Your task to perform on an android device: Open Google Chrome Image 0: 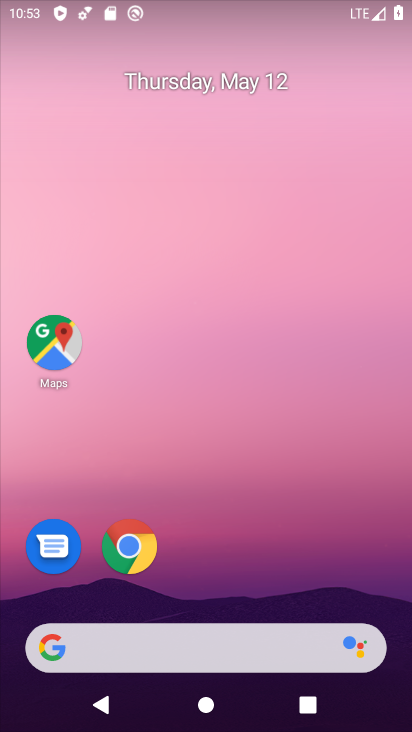
Step 0: click (130, 549)
Your task to perform on an android device: Open Google Chrome Image 1: 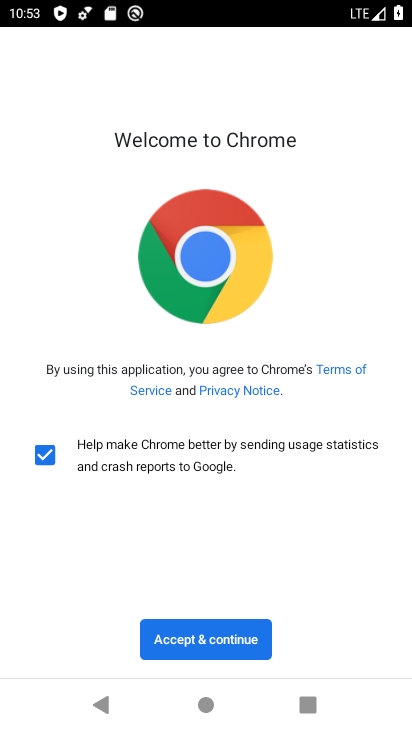
Step 1: click (234, 644)
Your task to perform on an android device: Open Google Chrome Image 2: 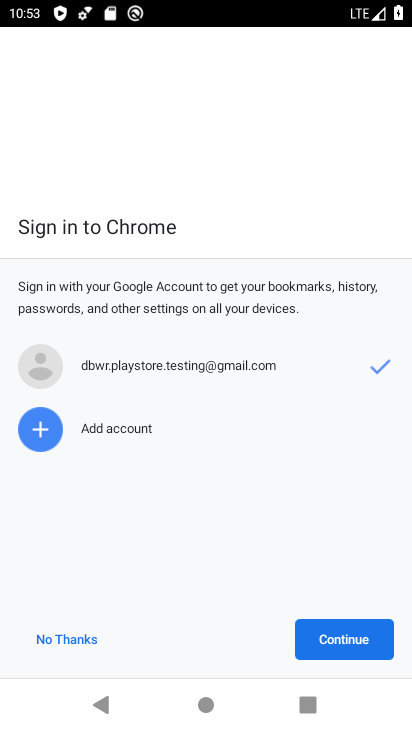
Step 2: click (355, 641)
Your task to perform on an android device: Open Google Chrome Image 3: 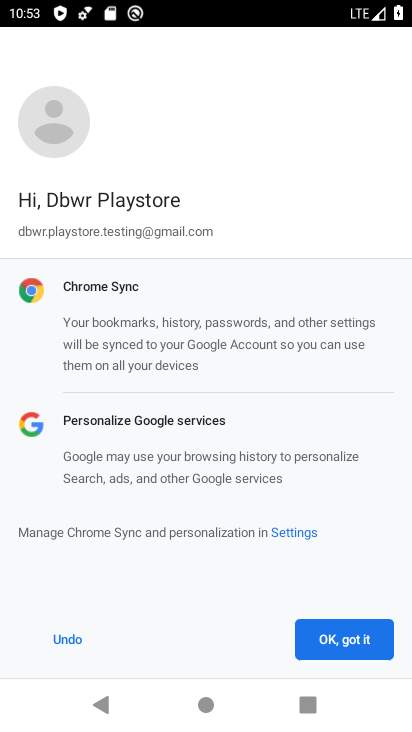
Step 3: click (353, 635)
Your task to perform on an android device: Open Google Chrome Image 4: 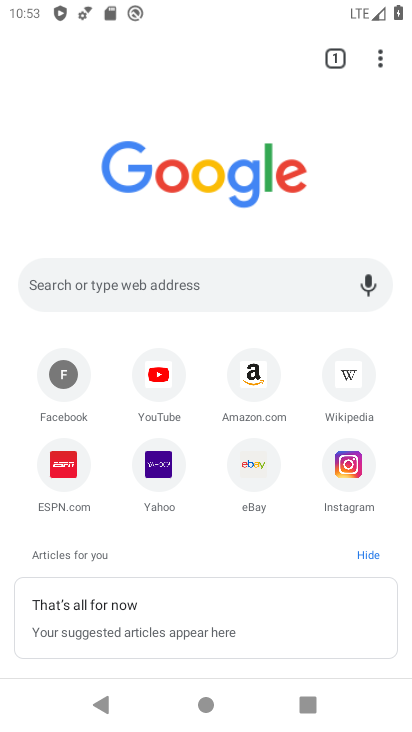
Step 4: task complete